Your task to perform on an android device: Open calendar and show me the third week of next month Image 0: 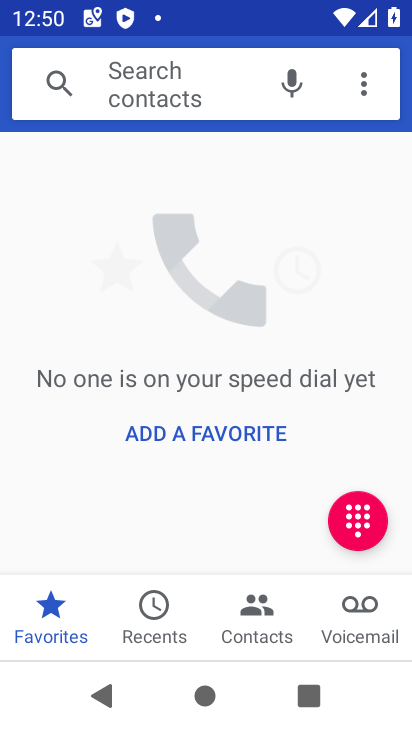
Step 0: press home button
Your task to perform on an android device: Open calendar and show me the third week of next month Image 1: 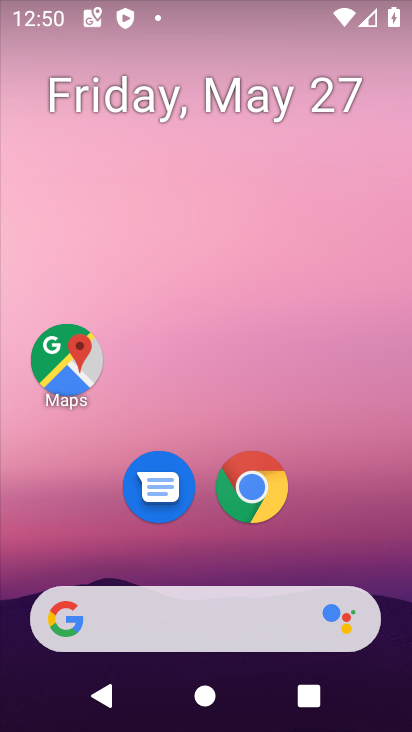
Step 1: drag from (189, 552) to (263, 112)
Your task to perform on an android device: Open calendar and show me the third week of next month Image 2: 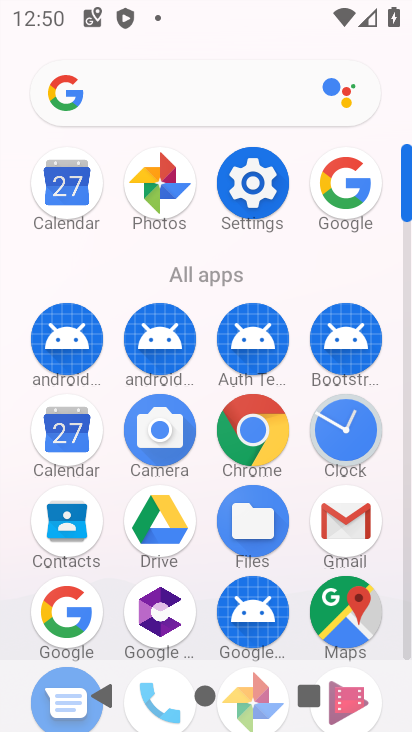
Step 2: click (67, 432)
Your task to perform on an android device: Open calendar and show me the third week of next month Image 3: 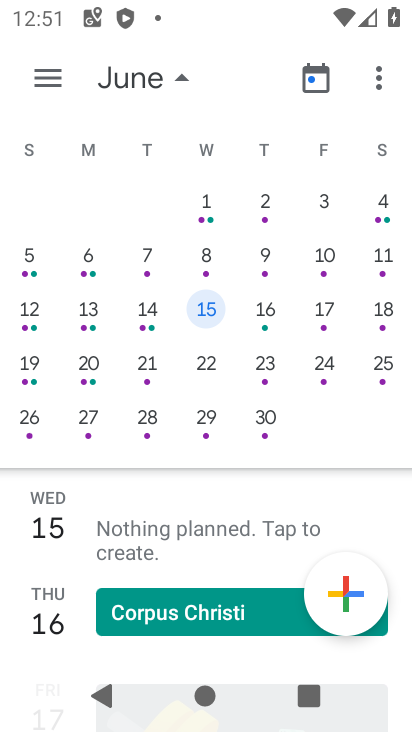
Step 3: task complete